Your task to perform on an android device: turn on sleep mode Image 0: 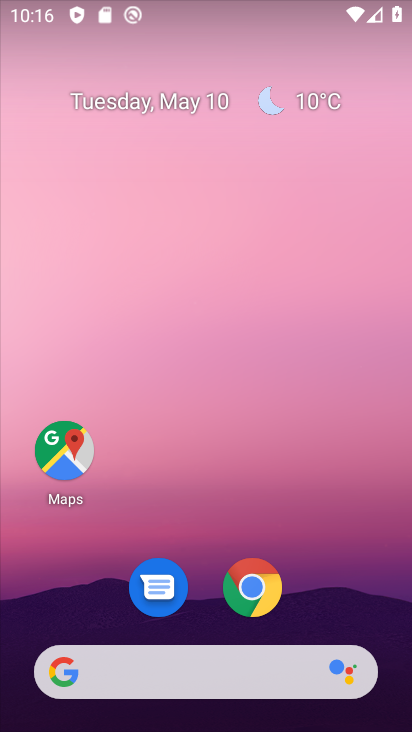
Step 0: drag from (198, 636) to (399, 529)
Your task to perform on an android device: turn on sleep mode Image 1: 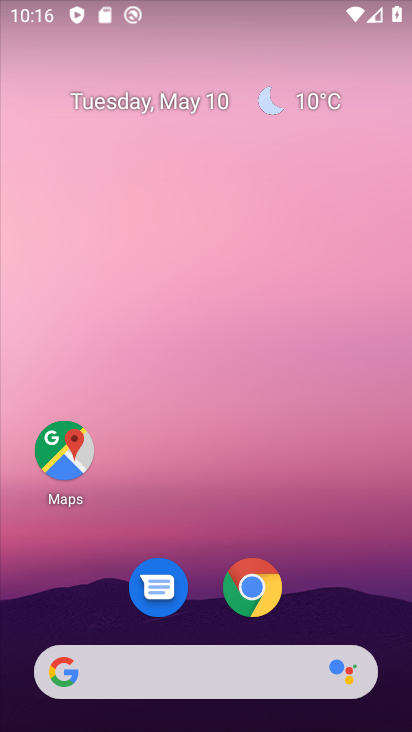
Step 1: drag from (201, 640) to (163, 0)
Your task to perform on an android device: turn on sleep mode Image 2: 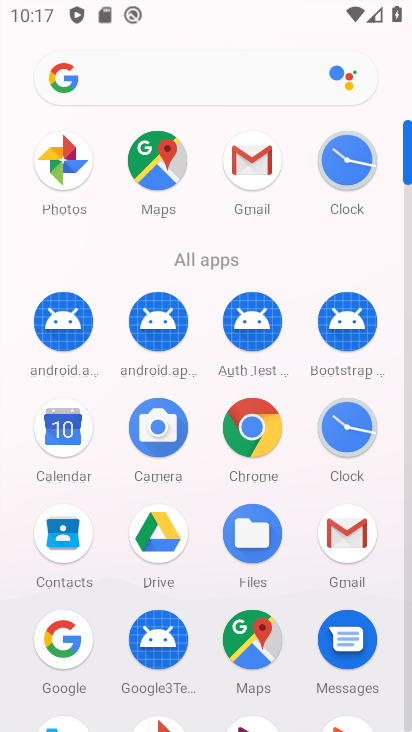
Step 2: drag from (210, 621) to (187, 106)
Your task to perform on an android device: turn on sleep mode Image 3: 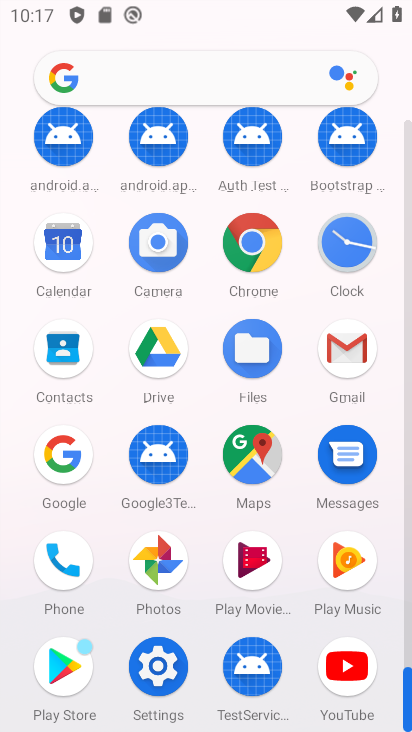
Step 3: click (147, 651)
Your task to perform on an android device: turn on sleep mode Image 4: 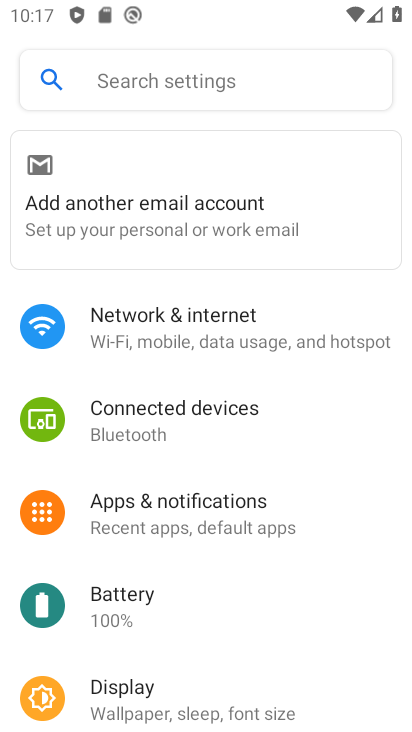
Step 4: task complete